Your task to perform on an android device: clear all cookies in the chrome app Image 0: 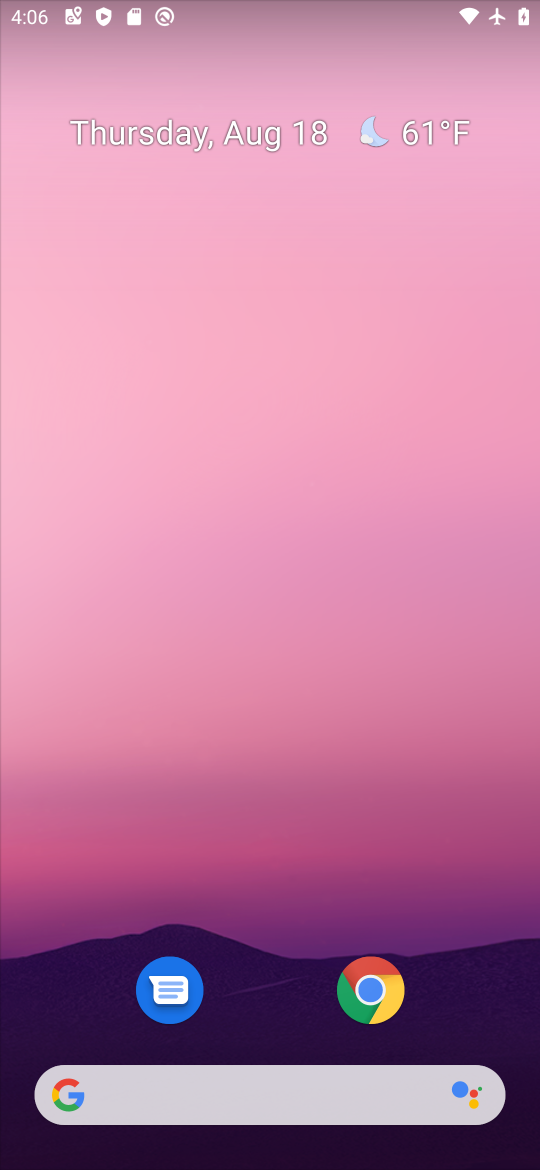
Step 0: drag from (249, 981) to (344, 121)
Your task to perform on an android device: clear all cookies in the chrome app Image 1: 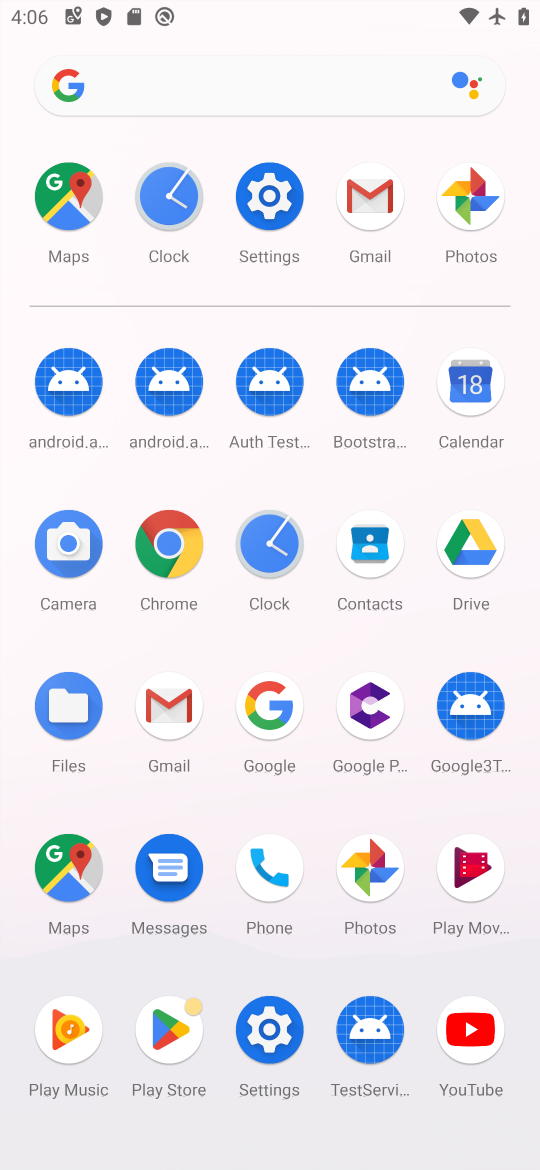
Step 1: click (177, 546)
Your task to perform on an android device: clear all cookies in the chrome app Image 2: 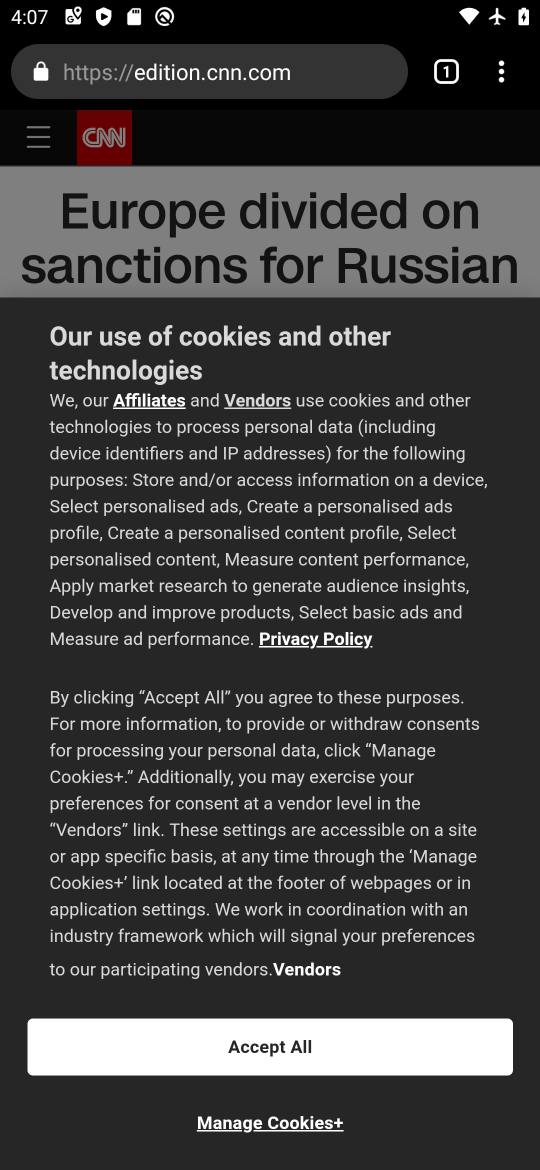
Step 2: drag from (237, 1130) to (15, 223)
Your task to perform on an android device: clear all cookies in the chrome app Image 3: 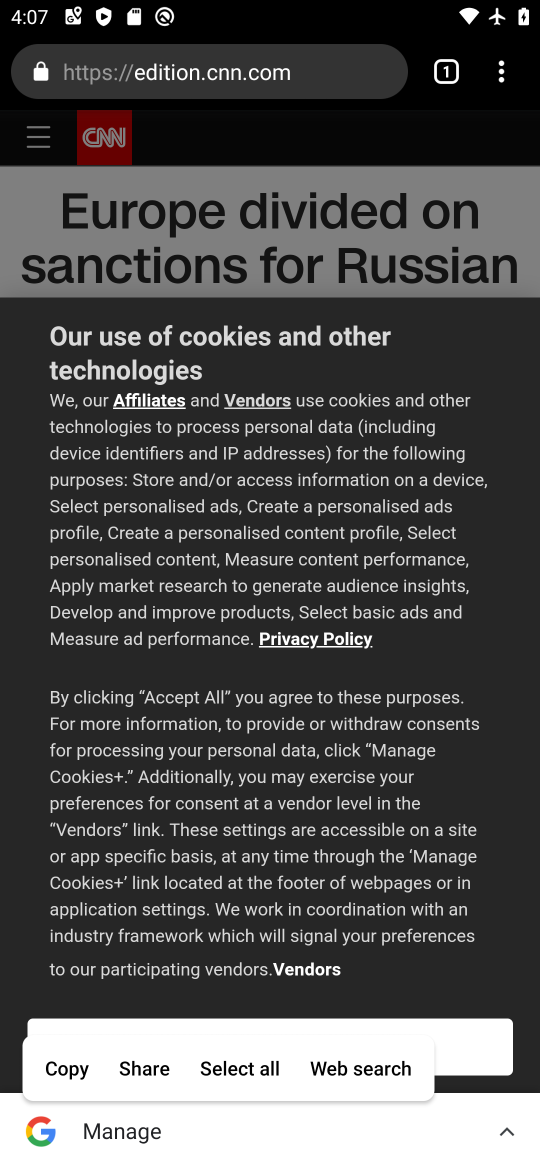
Step 3: click (494, 73)
Your task to perform on an android device: clear all cookies in the chrome app Image 4: 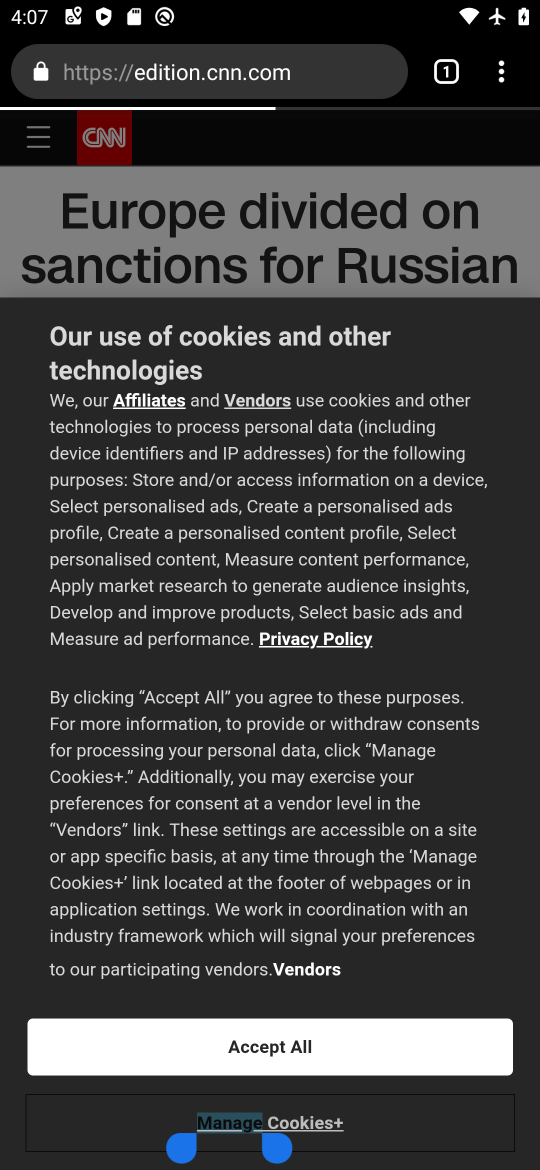
Step 4: drag from (506, 80) to (246, 408)
Your task to perform on an android device: clear all cookies in the chrome app Image 5: 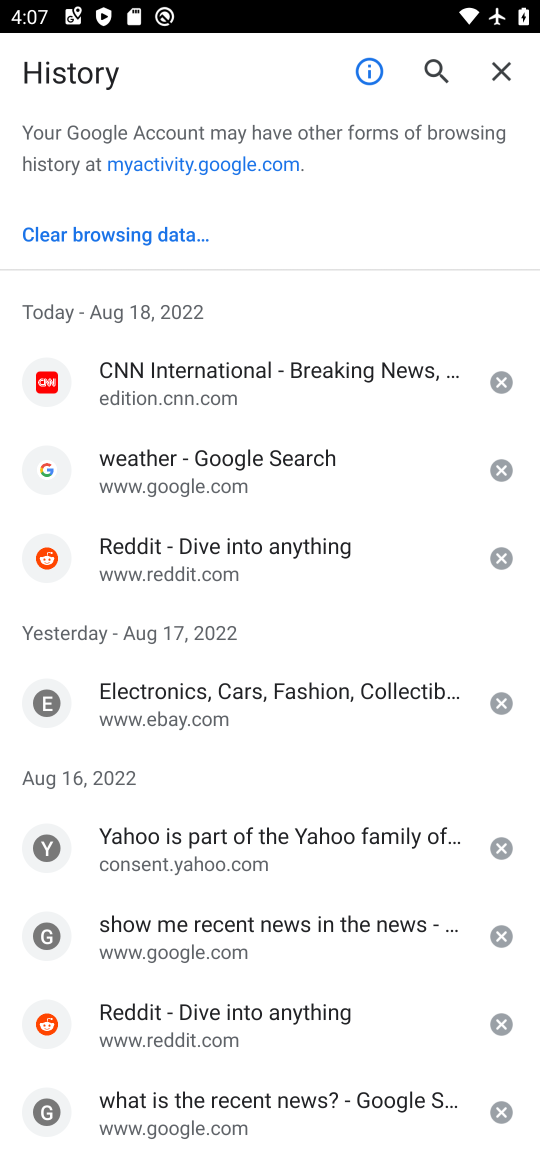
Step 5: click (165, 246)
Your task to perform on an android device: clear all cookies in the chrome app Image 6: 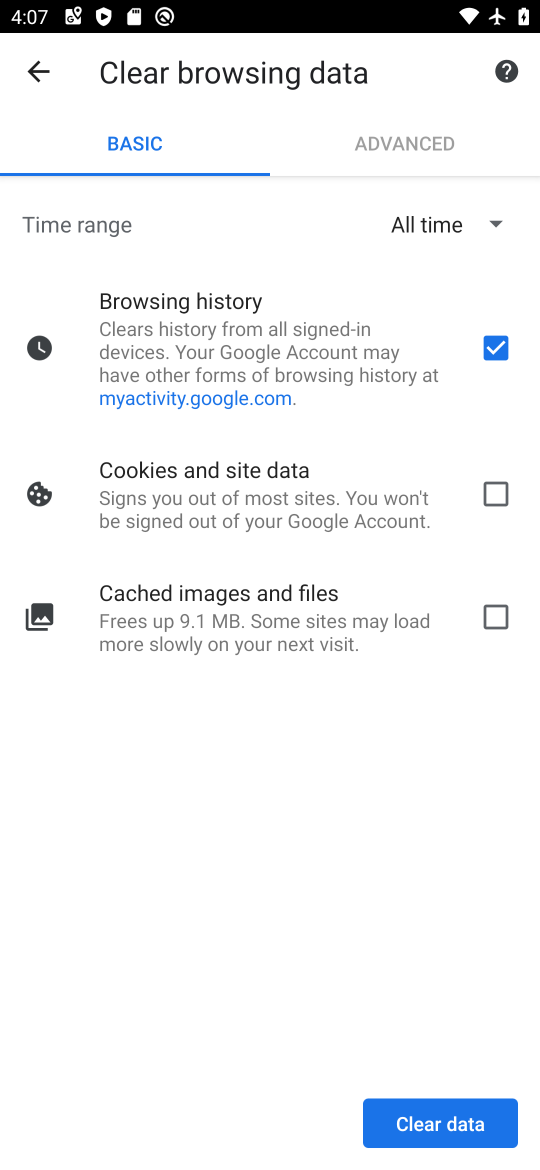
Step 6: click (488, 497)
Your task to perform on an android device: clear all cookies in the chrome app Image 7: 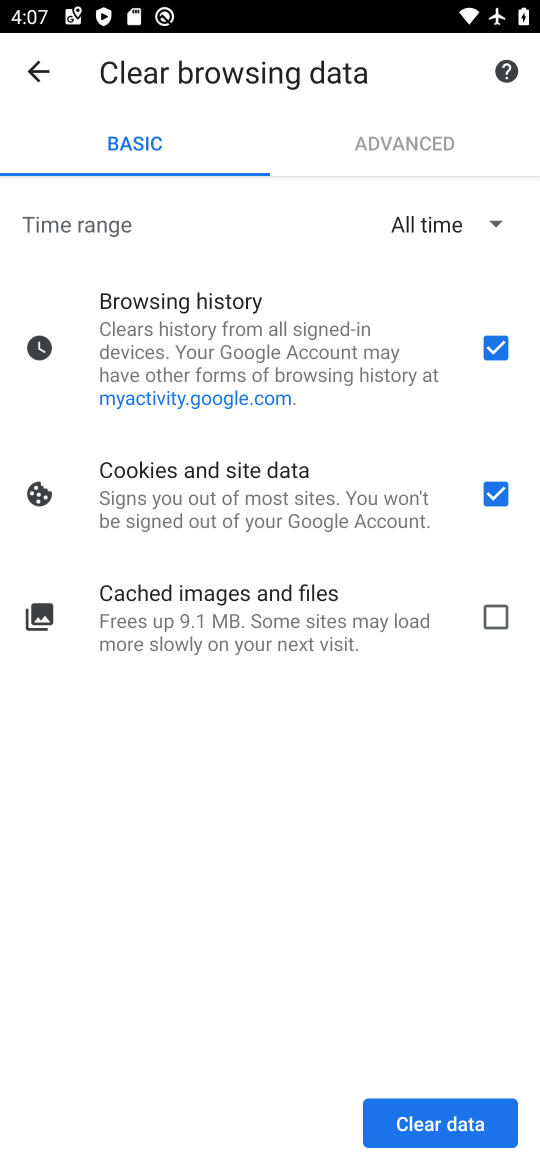
Step 7: click (435, 1110)
Your task to perform on an android device: clear all cookies in the chrome app Image 8: 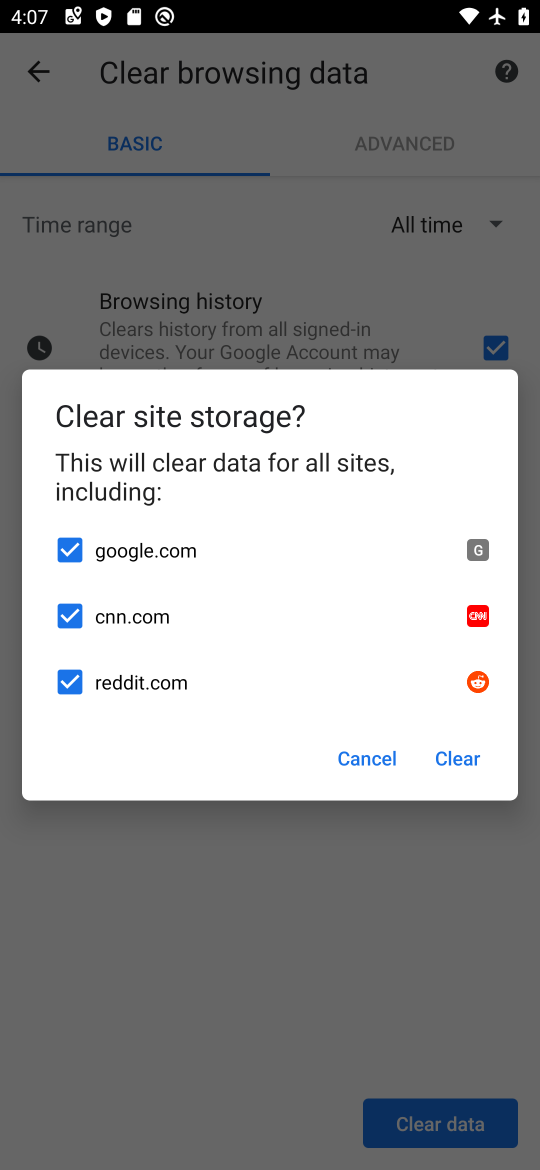
Step 8: click (462, 758)
Your task to perform on an android device: clear all cookies in the chrome app Image 9: 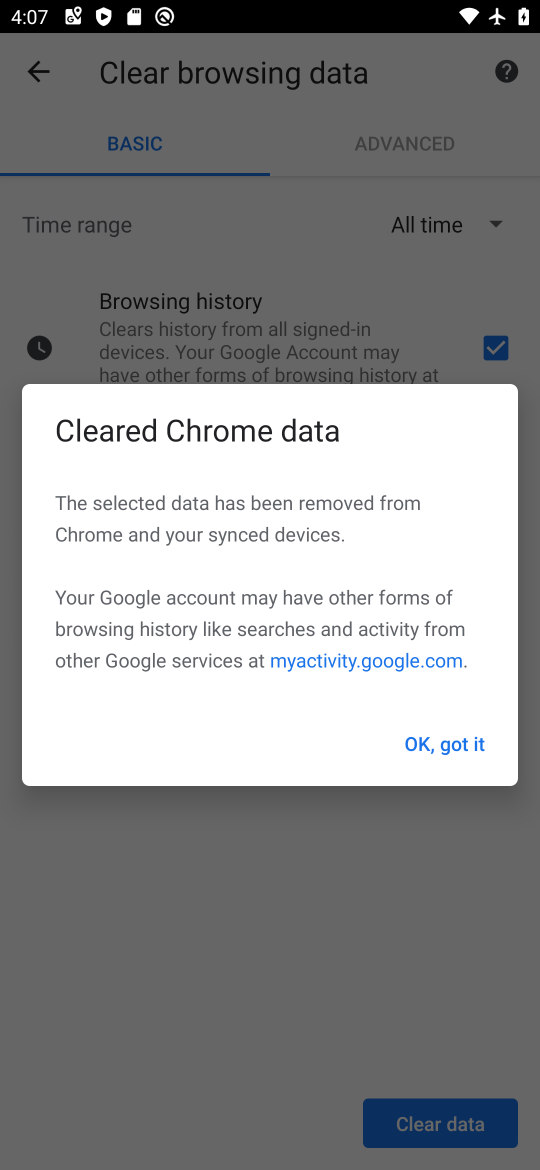
Step 9: click (468, 754)
Your task to perform on an android device: clear all cookies in the chrome app Image 10: 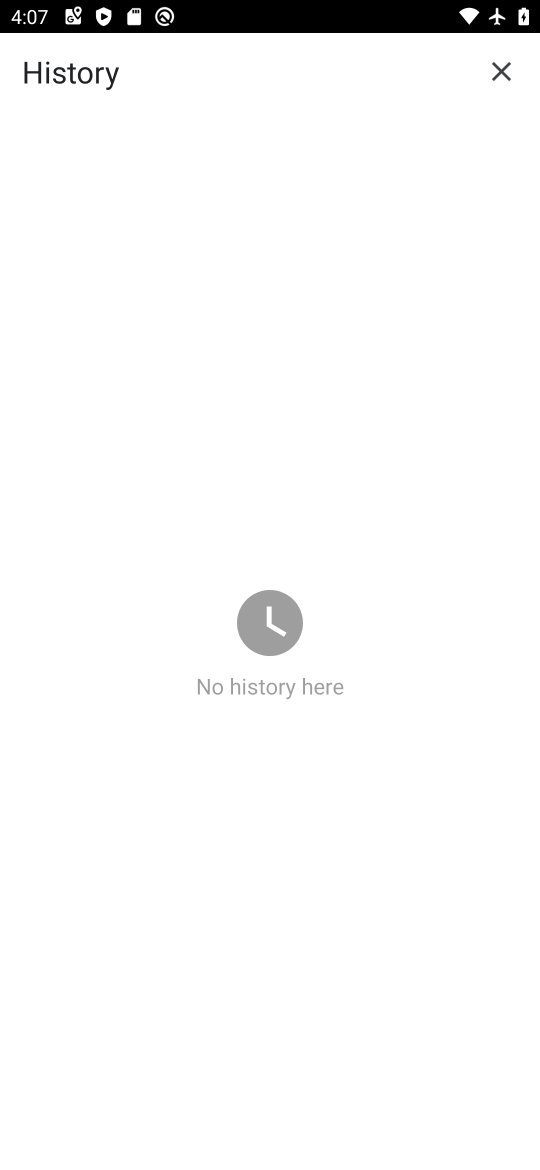
Step 10: task complete